Your task to perform on an android device: remove spam from my inbox in the gmail app Image 0: 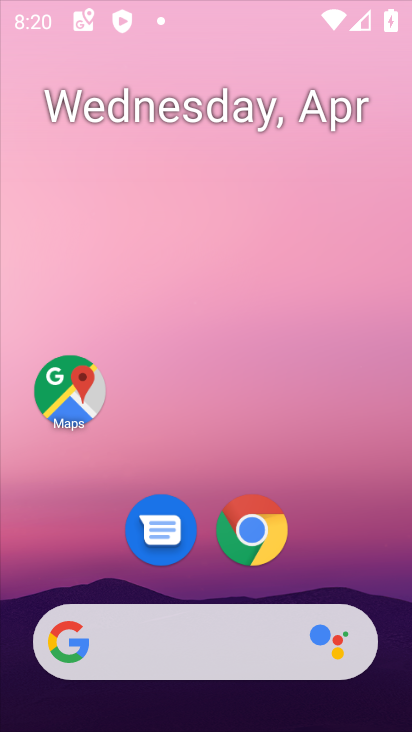
Step 0: click (316, 228)
Your task to perform on an android device: remove spam from my inbox in the gmail app Image 1: 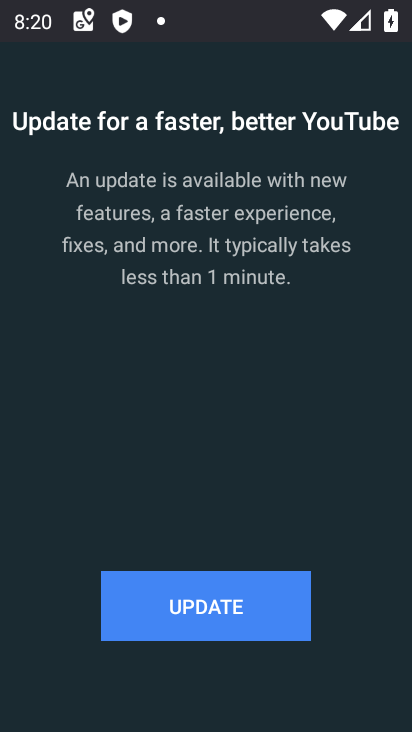
Step 1: press home button
Your task to perform on an android device: remove spam from my inbox in the gmail app Image 2: 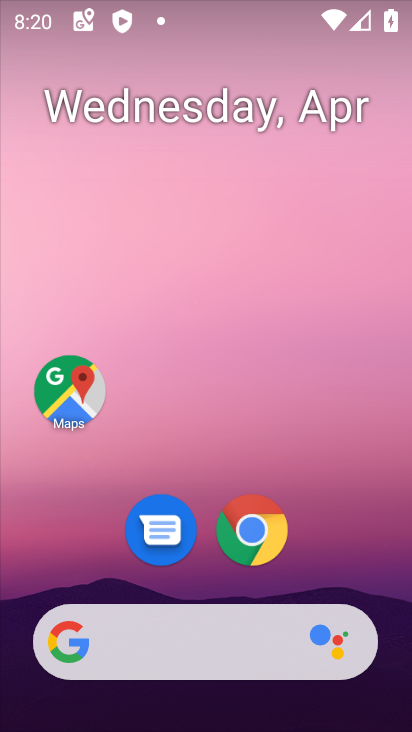
Step 2: drag from (347, 560) to (276, 103)
Your task to perform on an android device: remove spam from my inbox in the gmail app Image 3: 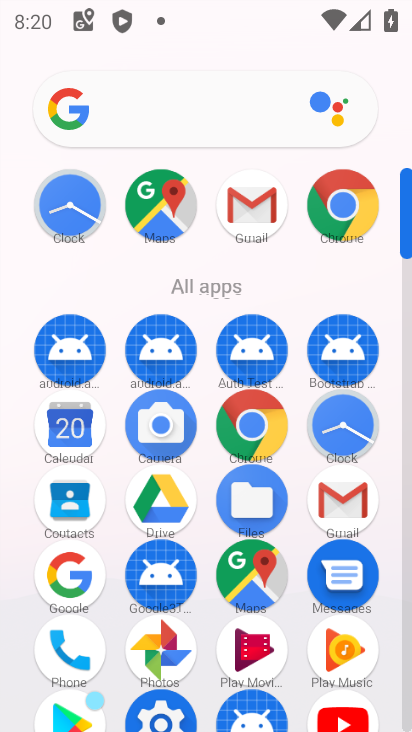
Step 3: click (259, 225)
Your task to perform on an android device: remove spam from my inbox in the gmail app Image 4: 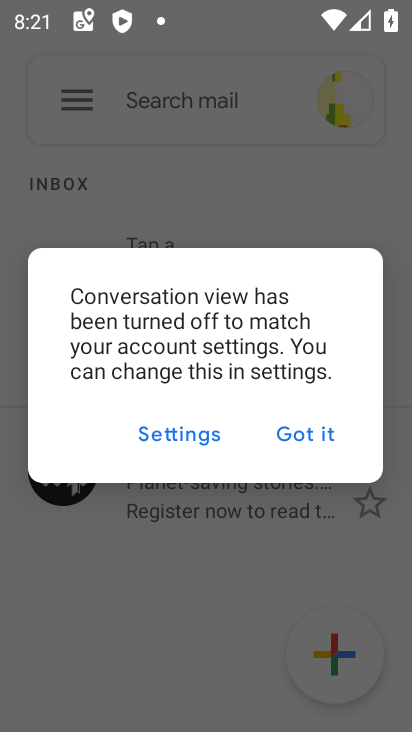
Step 4: click (307, 440)
Your task to perform on an android device: remove spam from my inbox in the gmail app Image 5: 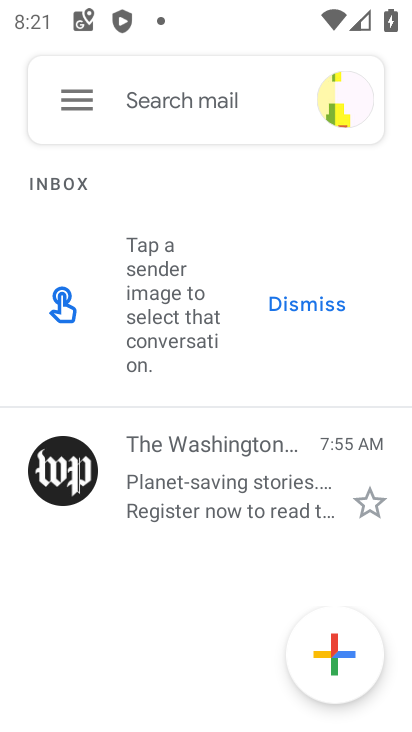
Step 5: click (67, 107)
Your task to perform on an android device: remove spam from my inbox in the gmail app Image 6: 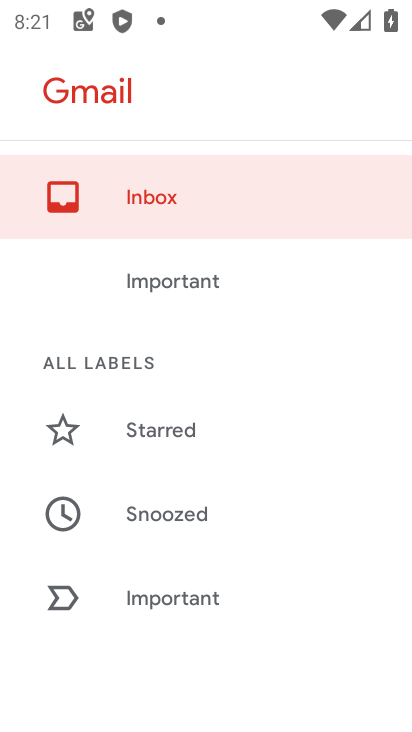
Step 6: drag from (267, 607) to (249, 311)
Your task to perform on an android device: remove spam from my inbox in the gmail app Image 7: 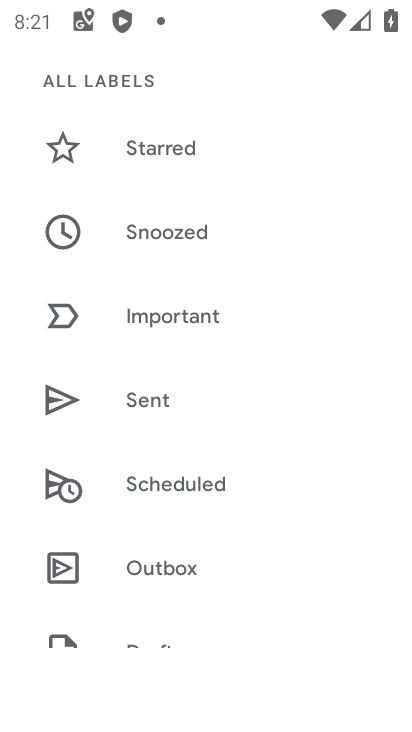
Step 7: drag from (304, 536) to (263, 267)
Your task to perform on an android device: remove spam from my inbox in the gmail app Image 8: 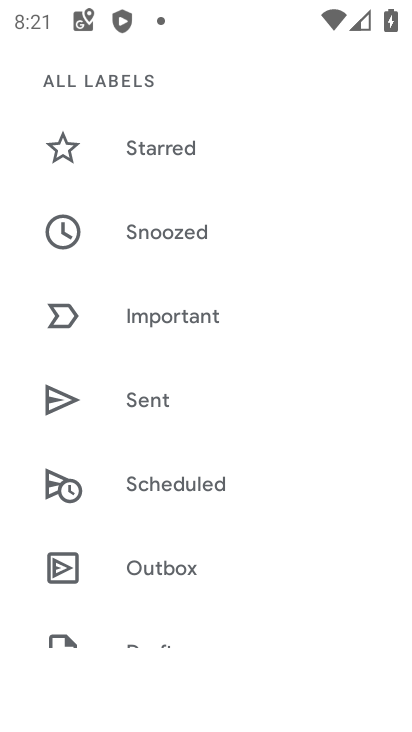
Step 8: drag from (295, 474) to (284, 234)
Your task to perform on an android device: remove spam from my inbox in the gmail app Image 9: 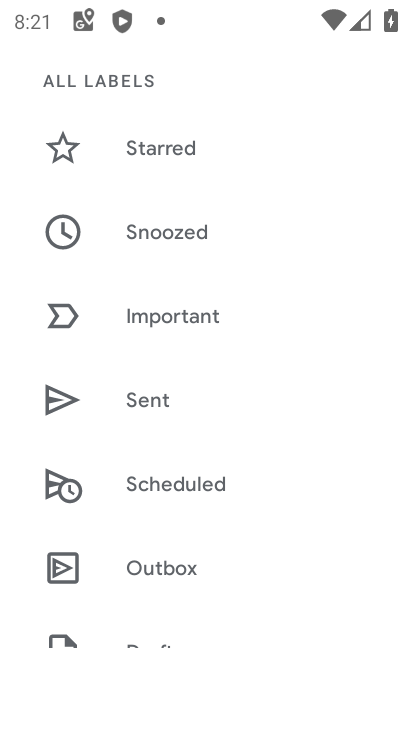
Step 9: drag from (284, 562) to (265, 342)
Your task to perform on an android device: remove spam from my inbox in the gmail app Image 10: 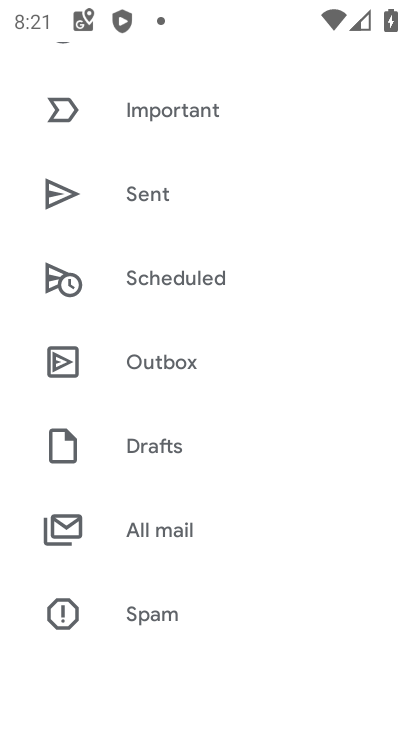
Step 10: click (228, 617)
Your task to perform on an android device: remove spam from my inbox in the gmail app Image 11: 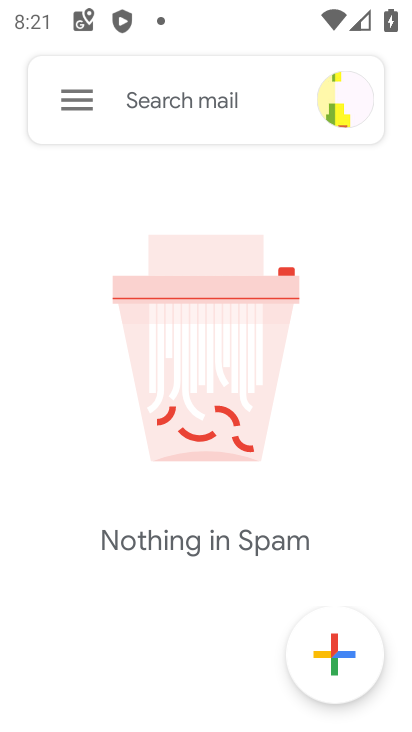
Step 11: task complete